Your task to perform on an android device: empty trash in the gmail app Image 0: 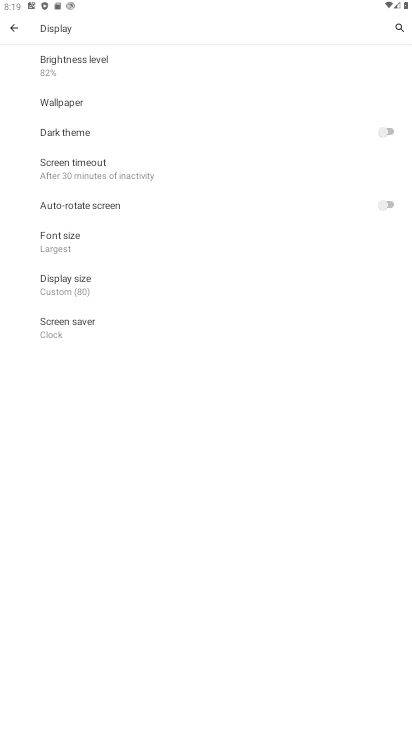
Step 0: press home button
Your task to perform on an android device: empty trash in the gmail app Image 1: 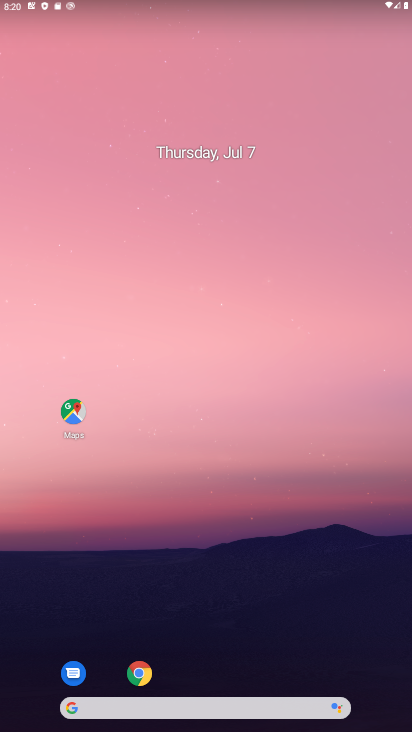
Step 1: drag from (269, 658) to (330, 11)
Your task to perform on an android device: empty trash in the gmail app Image 2: 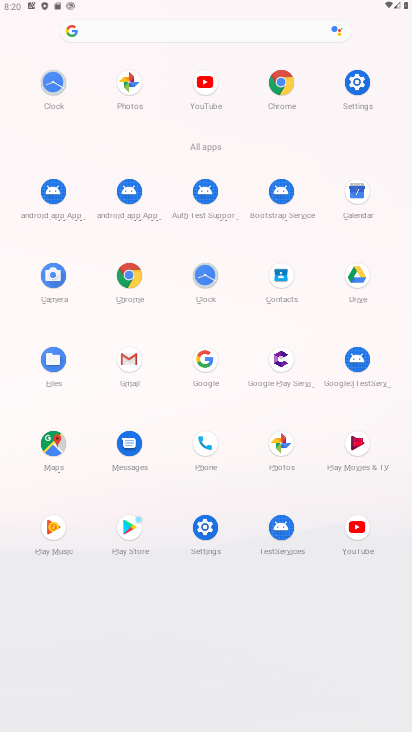
Step 2: click (126, 359)
Your task to perform on an android device: empty trash in the gmail app Image 3: 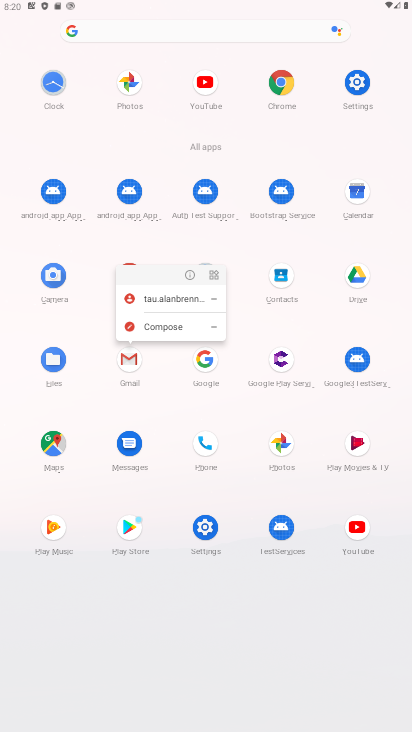
Step 3: click (133, 363)
Your task to perform on an android device: empty trash in the gmail app Image 4: 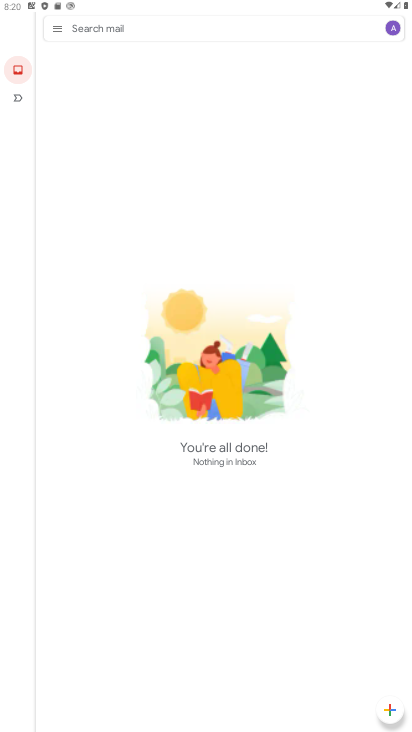
Step 4: click (57, 29)
Your task to perform on an android device: empty trash in the gmail app Image 5: 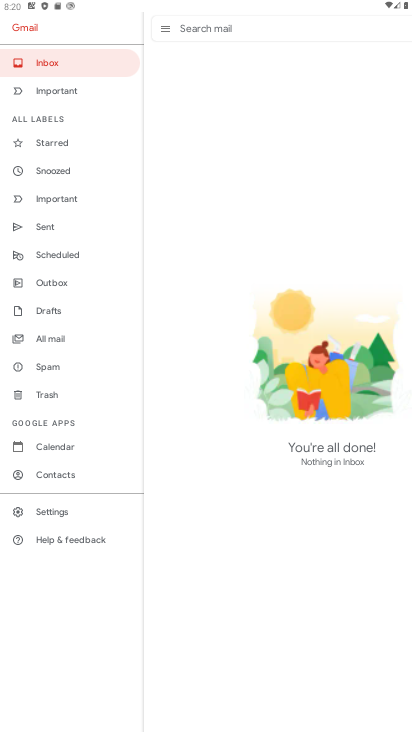
Step 5: click (51, 393)
Your task to perform on an android device: empty trash in the gmail app Image 6: 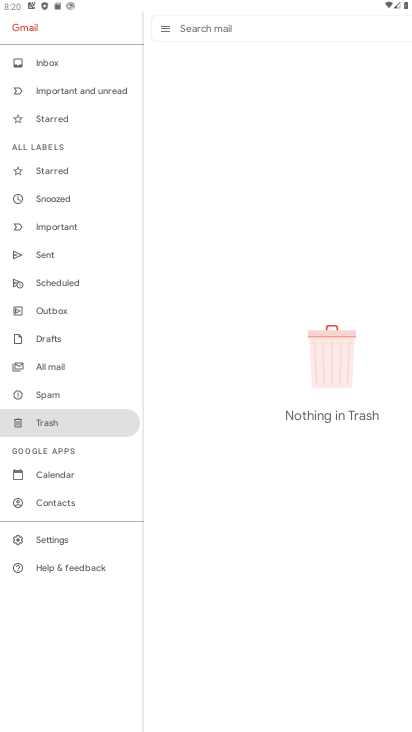
Step 6: task complete